Your task to perform on an android device: remove spam from my inbox in the gmail app Image 0: 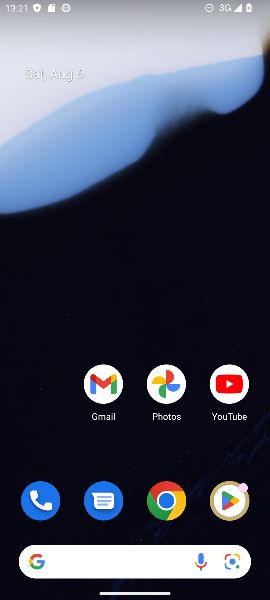
Step 0: drag from (129, 408) to (107, 116)
Your task to perform on an android device: remove spam from my inbox in the gmail app Image 1: 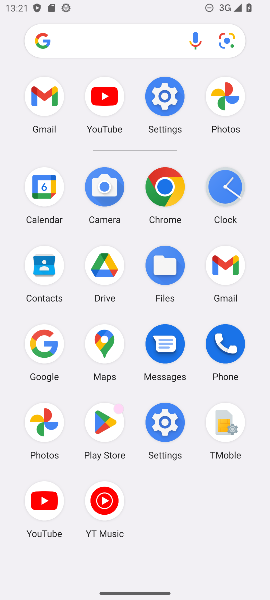
Step 1: click (44, 103)
Your task to perform on an android device: remove spam from my inbox in the gmail app Image 2: 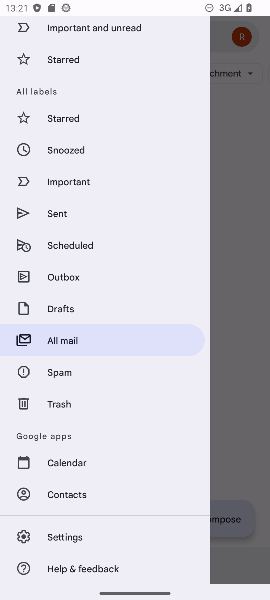
Step 2: click (61, 371)
Your task to perform on an android device: remove spam from my inbox in the gmail app Image 3: 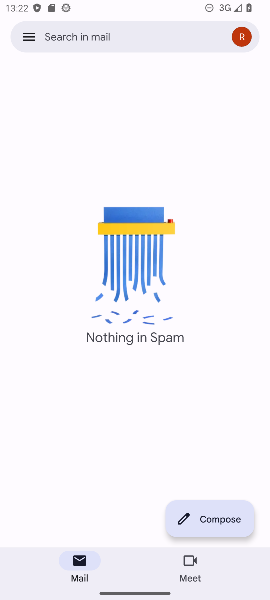
Step 3: task complete